Your task to perform on an android device: Open calendar and show me the second week of next month Image 0: 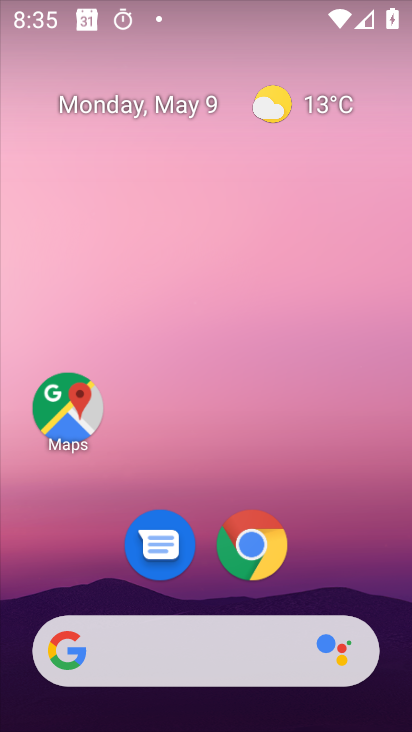
Step 0: drag from (376, 449) to (342, 35)
Your task to perform on an android device: Open calendar and show me the second week of next month Image 1: 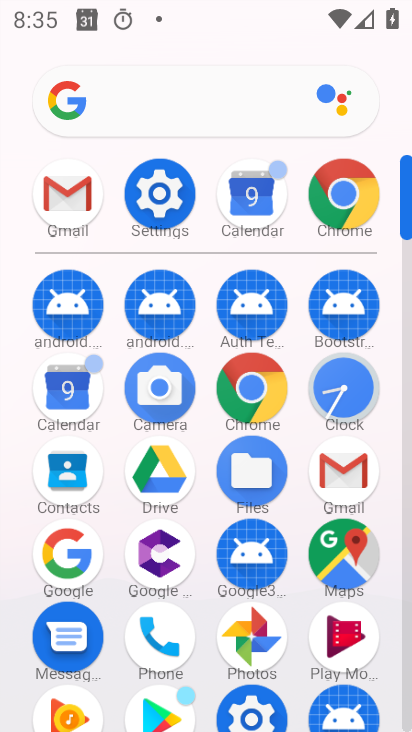
Step 1: click (70, 400)
Your task to perform on an android device: Open calendar and show me the second week of next month Image 2: 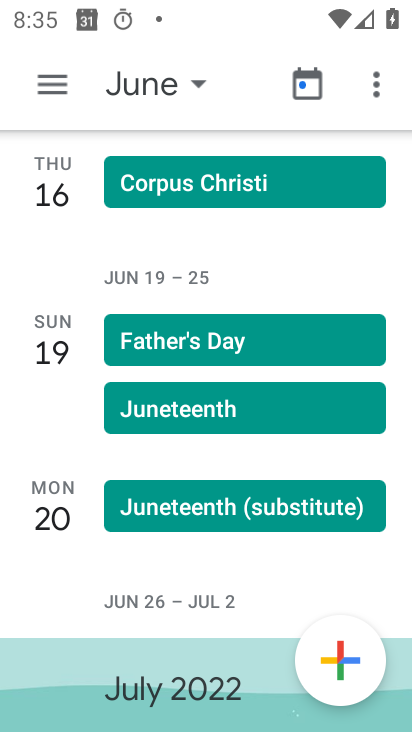
Step 2: click (168, 81)
Your task to perform on an android device: Open calendar and show me the second week of next month Image 3: 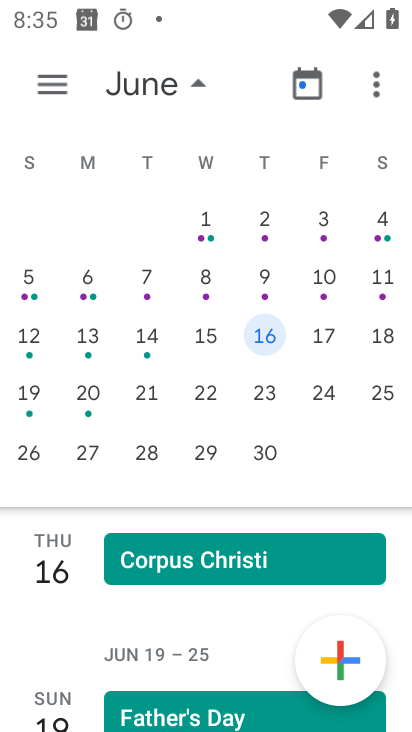
Step 3: drag from (366, 393) to (35, 533)
Your task to perform on an android device: Open calendar and show me the second week of next month Image 4: 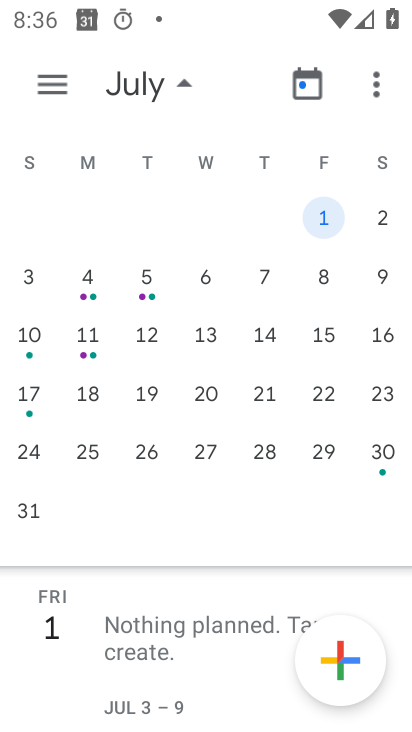
Step 4: click (283, 337)
Your task to perform on an android device: Open calendar and show me the second week of next month Image 5: 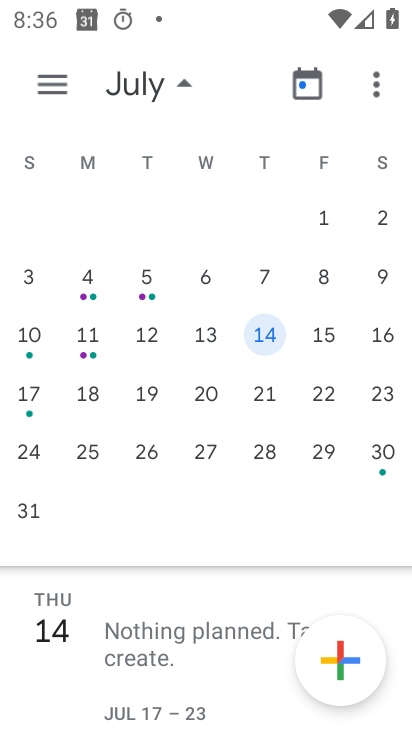
Step 5: task complete